Your task to perform on an android device: change your default location settings in chrome Image 0: 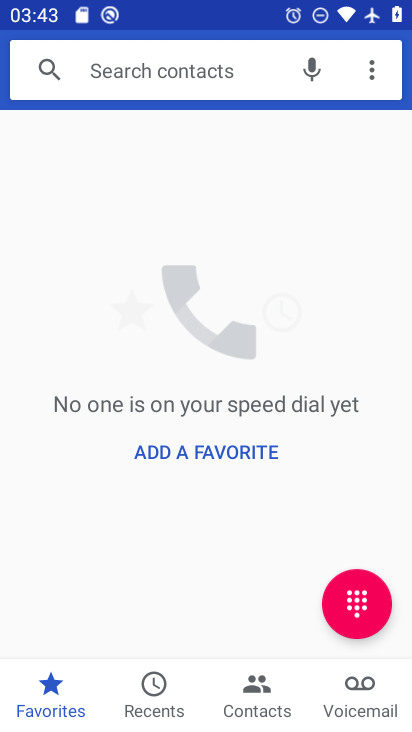
Step 0: press home button
Your task to perform on an android device: change your default location settings in chrome Image 1: 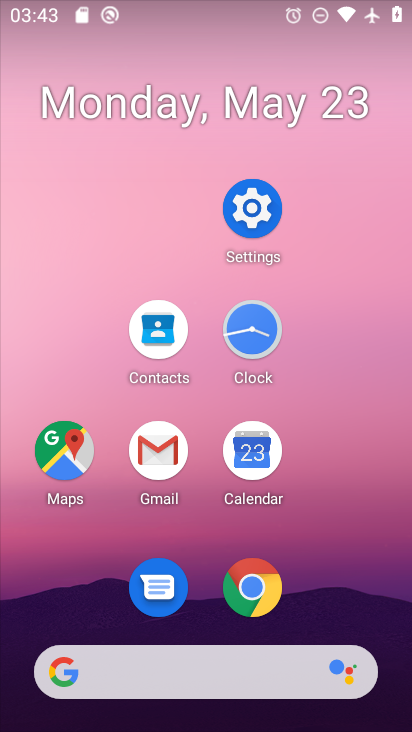
Step 1: click (255, 599)
Your task to perform on an android device: change your default location settings in chrome Image 2: 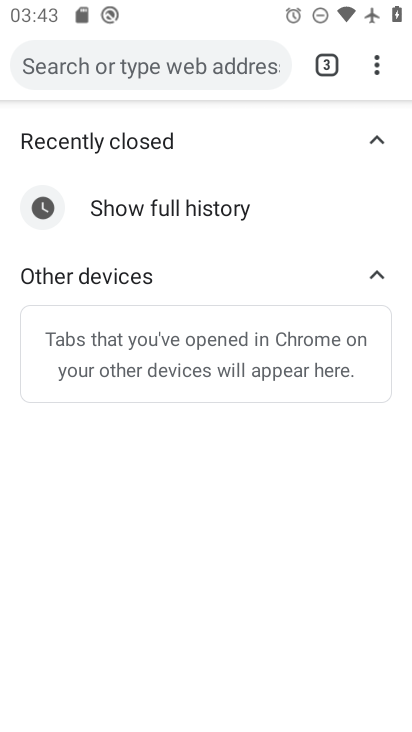
Step 2: click (374, 81)
Your task to perform on an android device: change your default location settings in chrome Image 3: 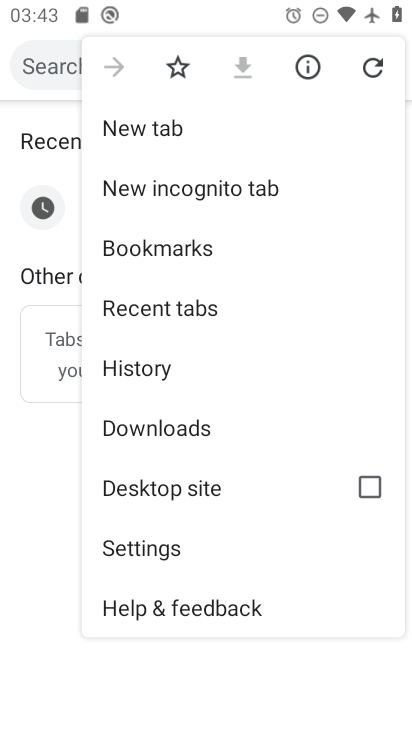
Step 3: click (182, 534)
Your task to perform on an android device: change your default location settings in chrome Image 4: 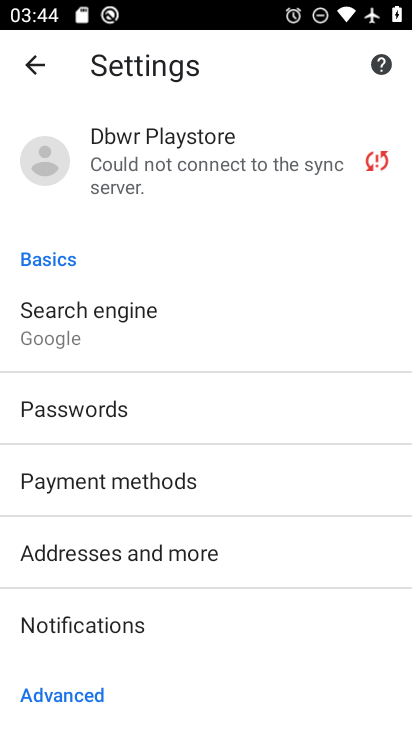
Step 4: click (202, 568)
Your task to perform on an android device: change your default location settings in chrome Image 5: 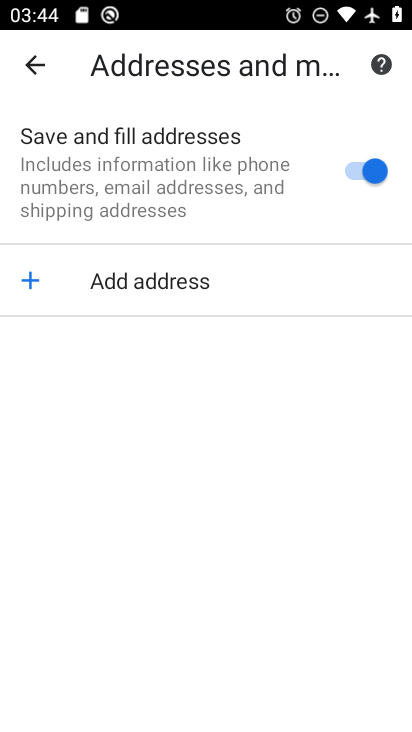
Step 5: task complete